Your task to perform on an android device: toggle javascript in the chrome app Image 0: 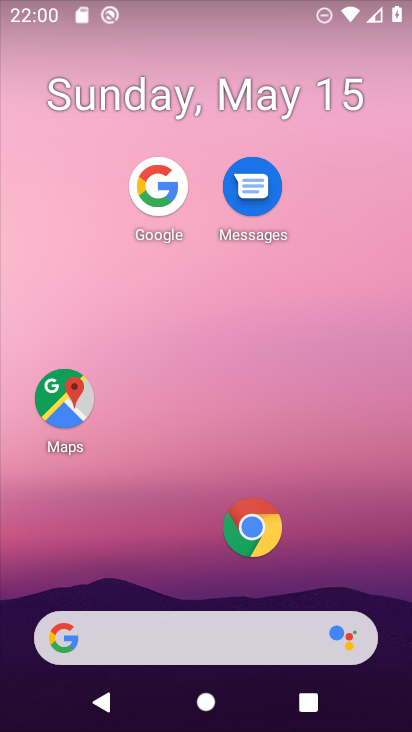
Step 0: press home button
Your task to perform on an android device: toggle javascript in the chrome app Image 1: 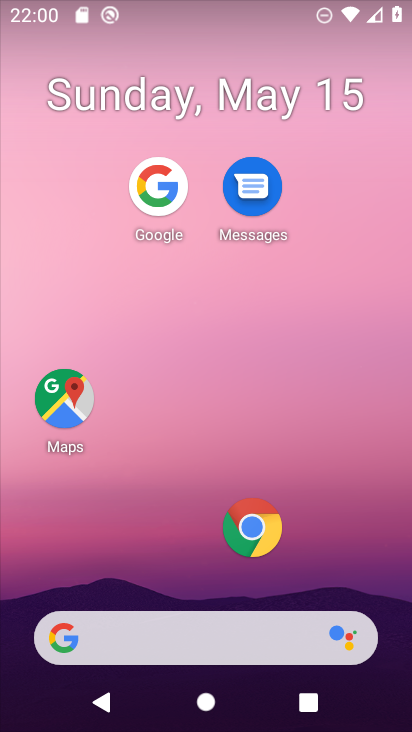
Step 1: click (262, 535)
Your task to perform on an android device: toggle javascript in the chrome app Image 2: 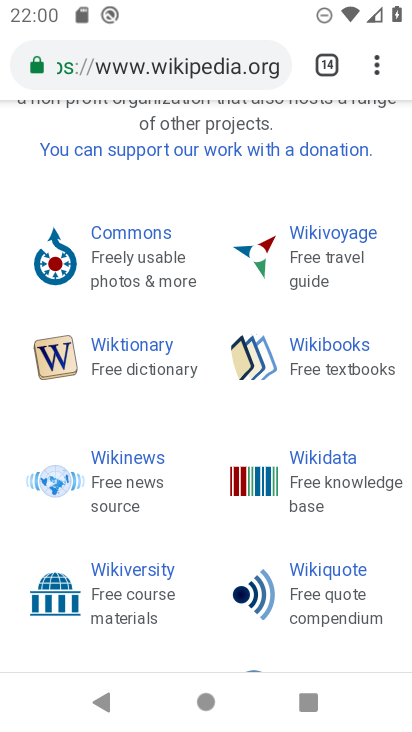
Step 2: drag from (375, 69) to (219, 593)
Your task to perform on an android device: toggle javascript in the chrome app Image 3: 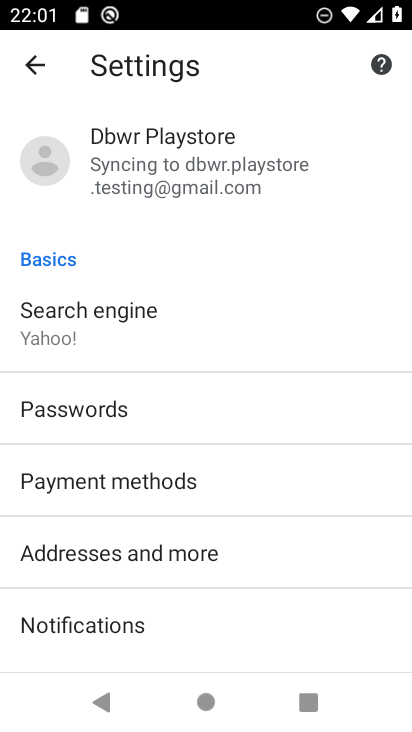
Step 3: drag from (177, 640) to (276, 208)
Your task to perform on an android device: toggle javascript in the chrome app Image 4: 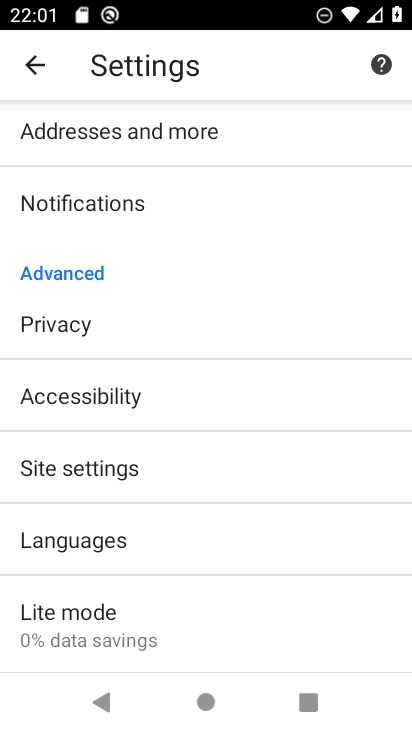
Step 4: click (87, 474)
Your task to perform on an android device: toggle javascript in the chrome app Image 5: 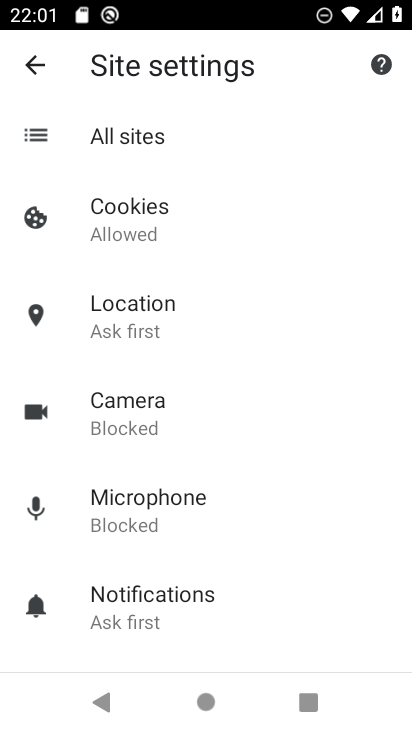
Step 5: drag from (222, 617) to (270, 251)
Your task to perform on an android device: toggle javascript in the chrome app Image 6: 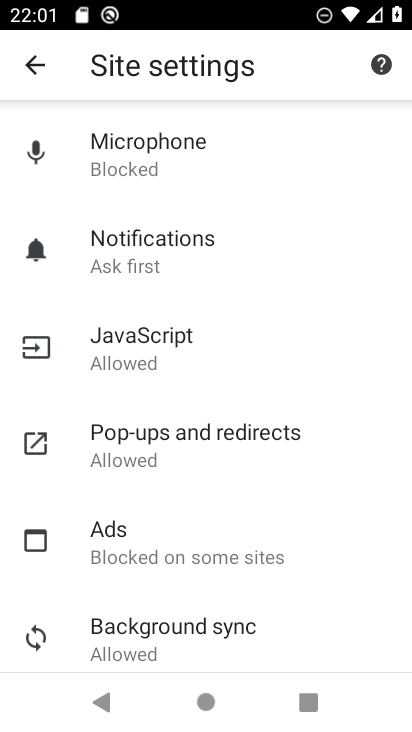
Step 6: click (150, 359)
Your task to perform on an android device: toggle javascript in the chrome app Image 7: 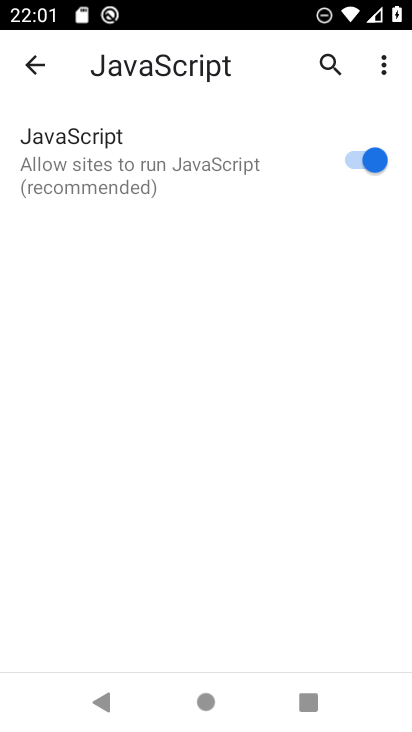
Step 7: click (359, 159)
Your task to perform on an android device: toggle javascript in the chrome app Image 8: 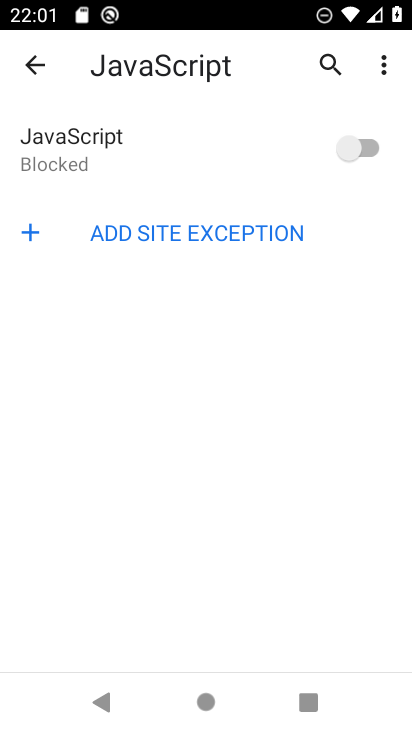
Step 8: task complete